Your task to perform on an android device: Go to Yahoo.com Image 0: 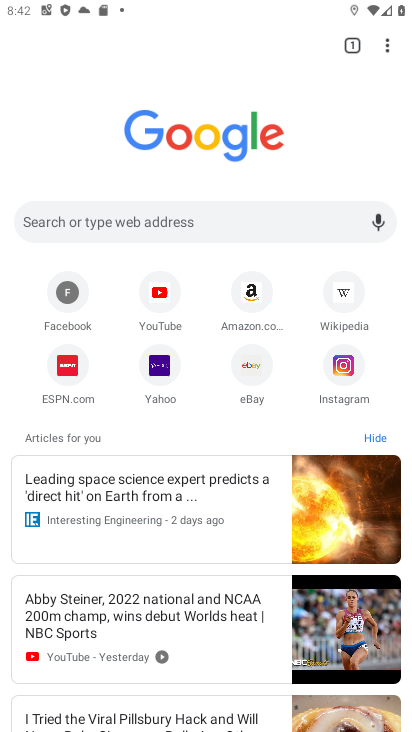
Step 0: press home button
Your task to perform on an android device: Go to Yahoo.com Image 1: 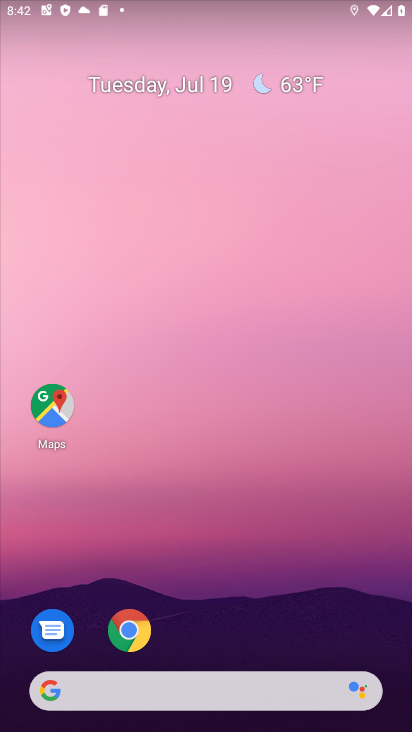
Step 1: click (128, 631)
Your task to perform on an android device: Go to Yahoo.com Image 2: 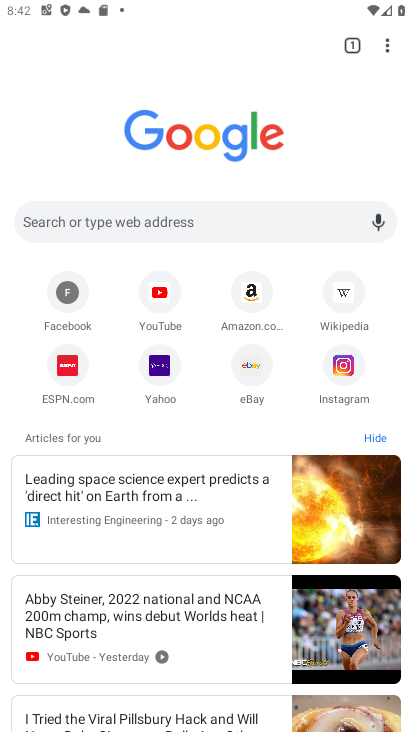
Step 2: click (159, 365)
Your task to perform on an android device: Go to Yahoo.com Image 3: 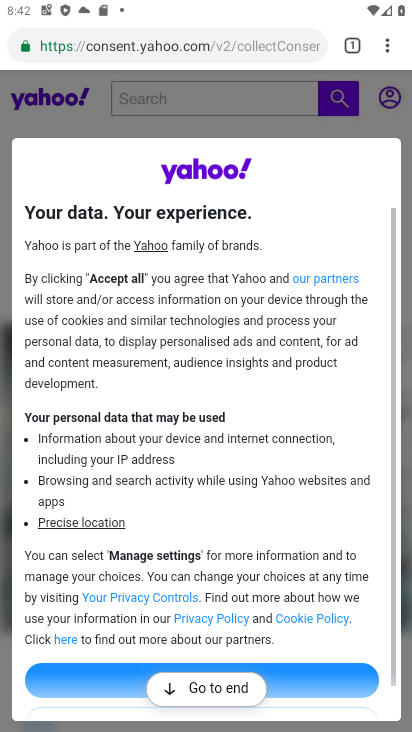
Step 3: click (189, 688)
Your task to perform on an android device: Go to Yahoo.com Image 4: 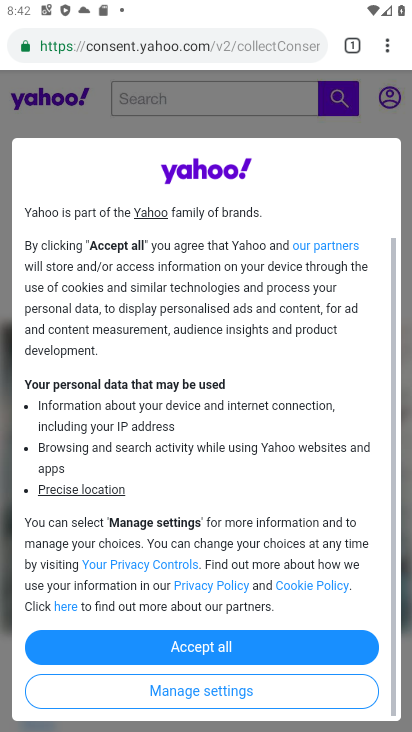
Step 4: click (212, 649)
Your task to perform on an android device: Go to Yahoo.com Image 5: 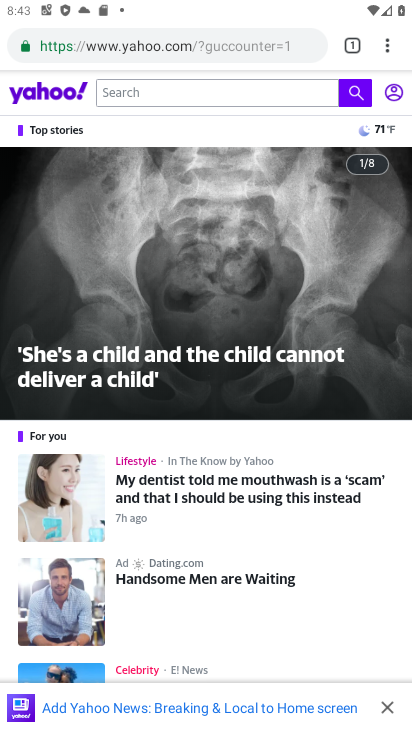
Step 5: task complete